Your task to perform on an android device: Go to settings Image 0: 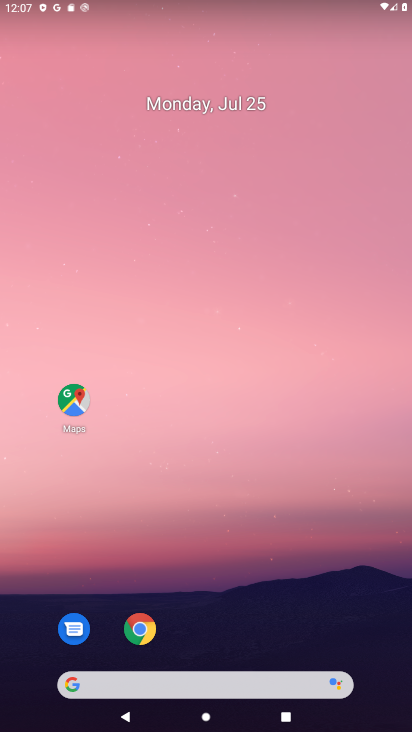
Step 0: drag from (377, 593) to (321, 24)
Your task to perform on an android device: Go to settings Image 1: 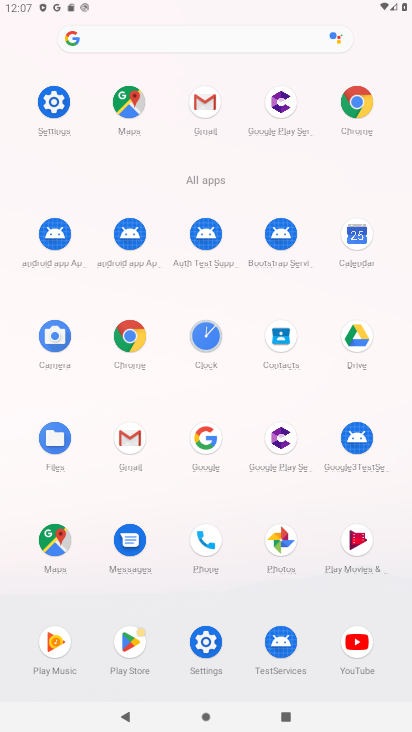
Step 1: click (50, 104)
Your task to perform on an android device: Go to settings Image 2: 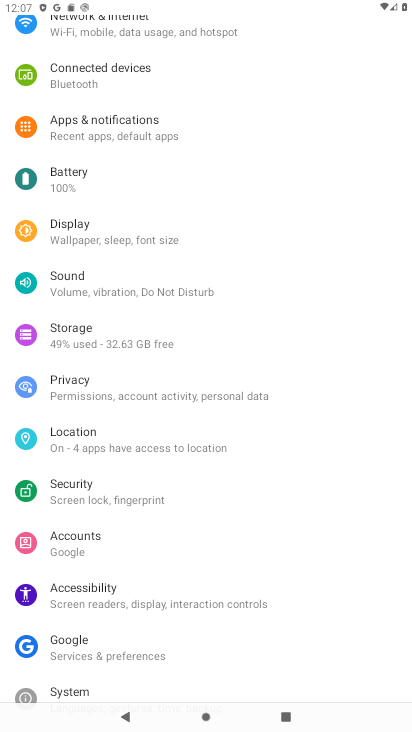
Step 2: task complete